Your task to perform on an android device: turn off smart reply in the gmail app Image 0: 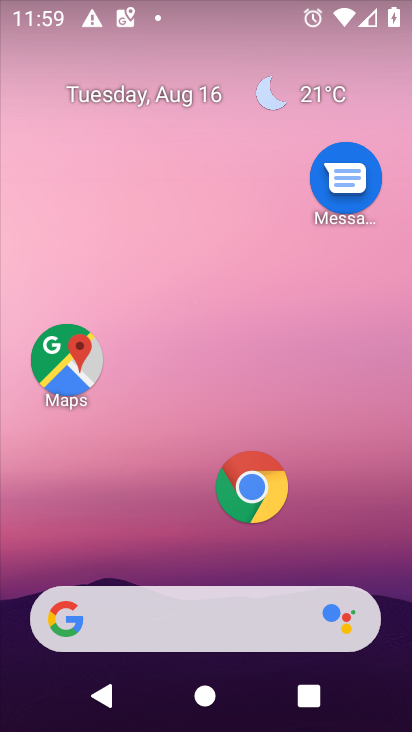
Step 0: drag from (191, 420) to (234, 101)
Your task to perform on an android device: turn off smart reply in the gmail app Image 1: 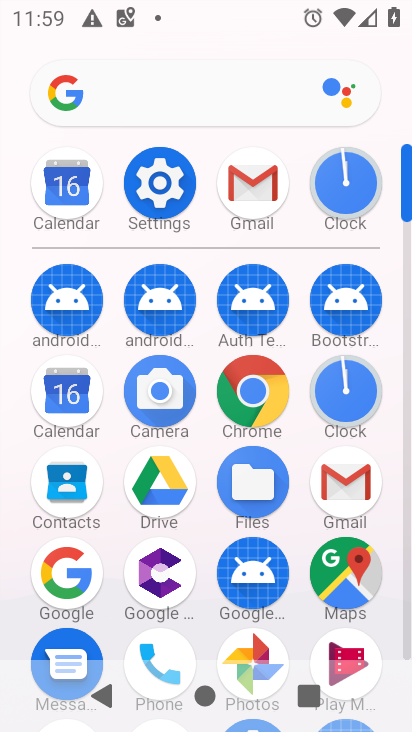
Step 1: click (241, 180)
Your task to perform on an android device: turn off smart reply in the gmail app Image 2: 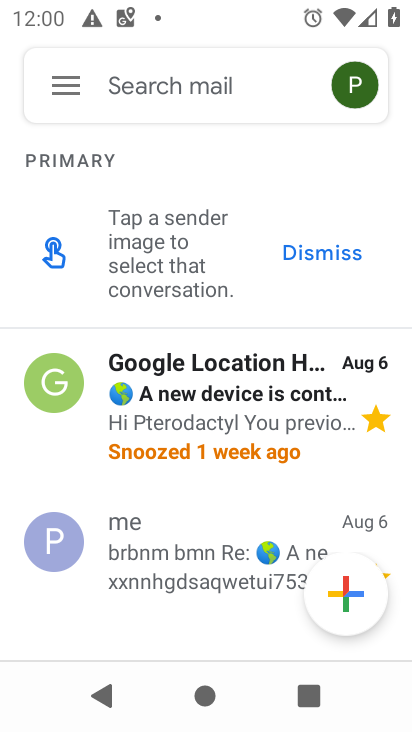
Step 2: click (51, 84)
Your task to perform on an android device: turn off smart reply in the gmail app Image 3: 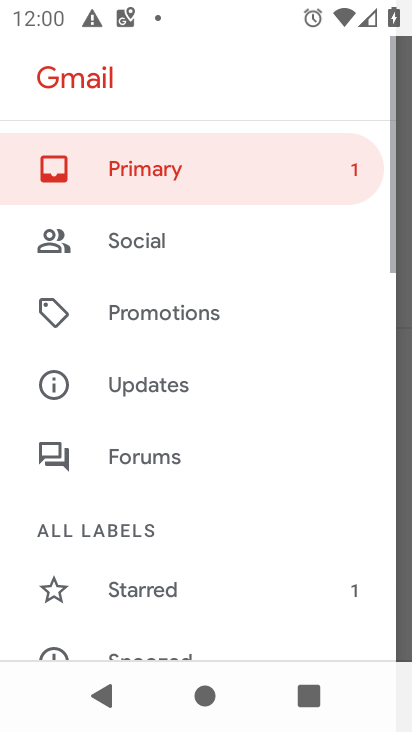
Step 3: drag from (233, 604) to (346, 36)
Your task to perform on an android device: turn off smart reply in the gmail app Image 4: 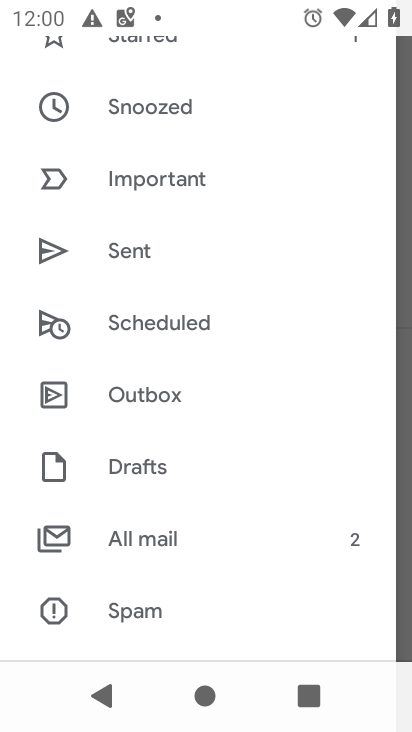
Step 4: drag from (200, 573) to (303, 0)
Your task to perform on an android device: turn off smart reply in the gmail app Image 5: 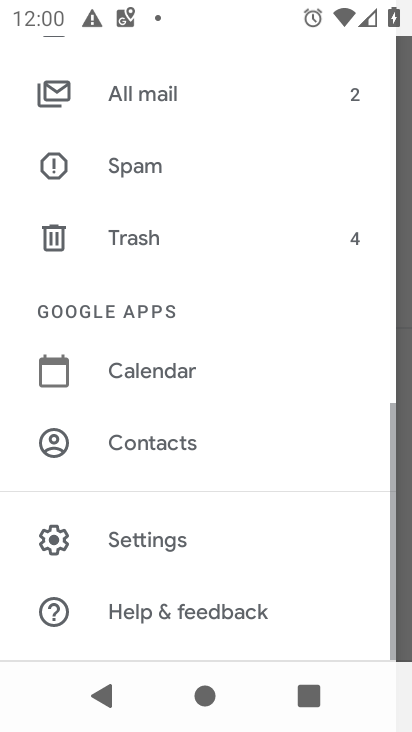
Step 5: click (168, 543)
Your task to perform on an android device: turn off smart reply in the gmail app Image 6: 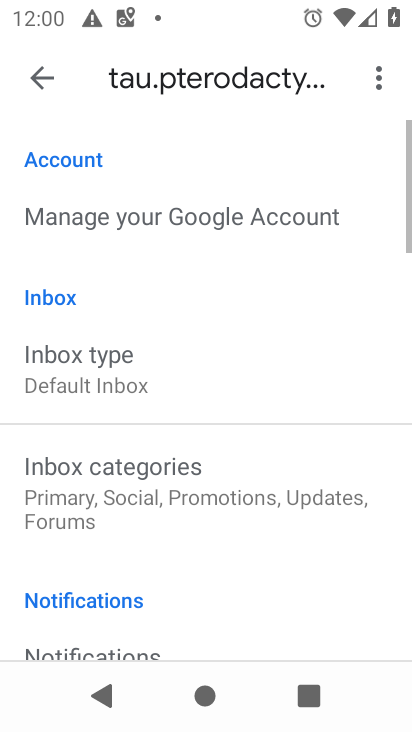
Step 6: drag from (170, 591) to (306, 28)
Your task to perform on an android device: turn off smart reply in the gmail app Image 7: 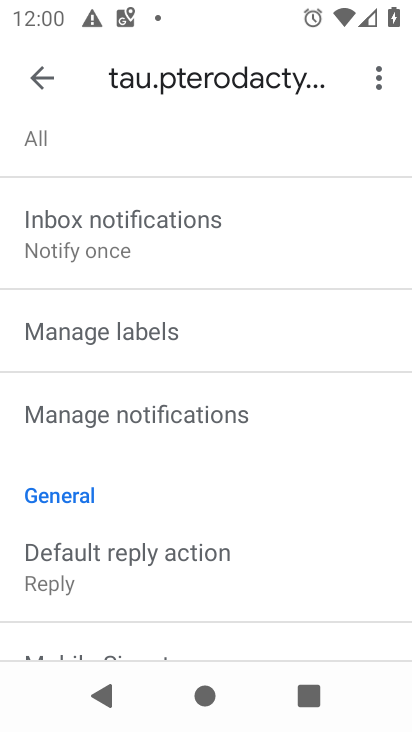
Step 7: drag from (139, 567) to (325, 20)
Your task to perform on an android device: turn off smart reply in the gmail app Image 8: 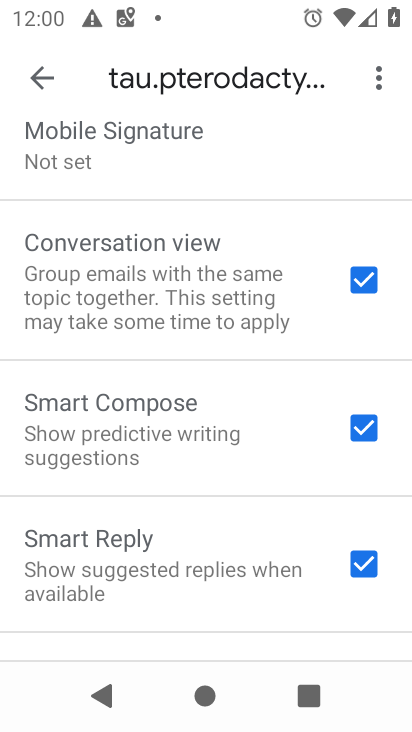
Step 8: click (363, 562)
Your task to perform on an android device: turn off smart reply in the gmail app Image 9: 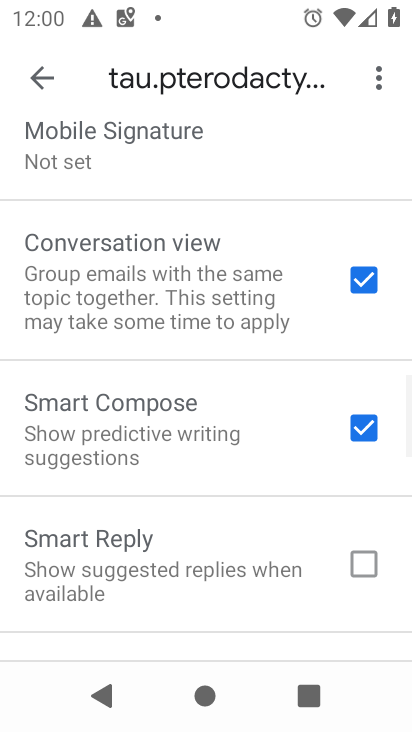
Step 9: task complete